Your task to perform on an android device: Show me recent news Image 0: 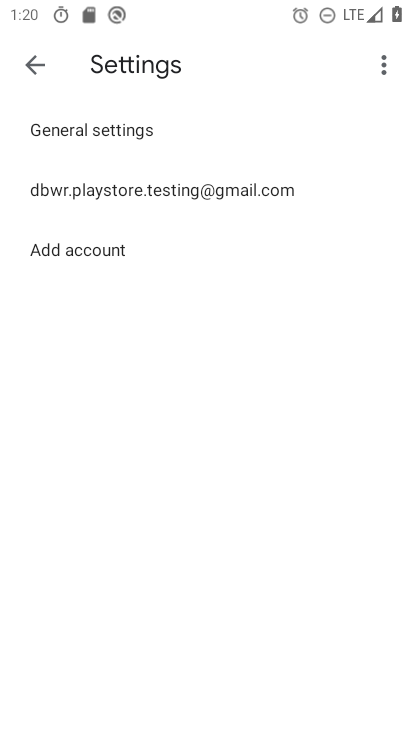
Step 0: press home button
Your task to perform on an android device: Show me recent news Image 1: 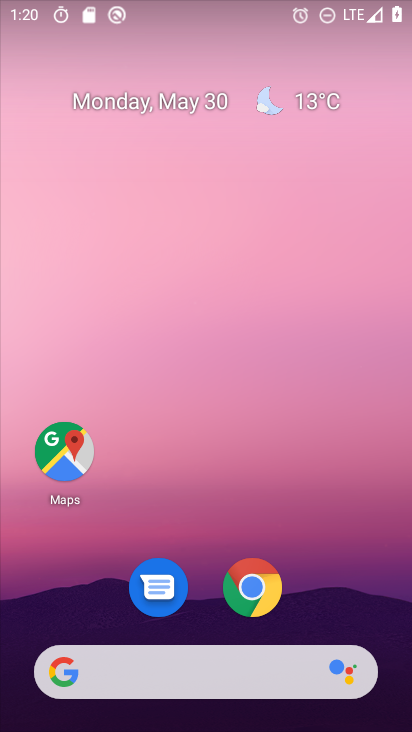
Step 1: drag from (309, 439) to (264, 151)
Your task to perform on an android device: Show me recent news Image 2: 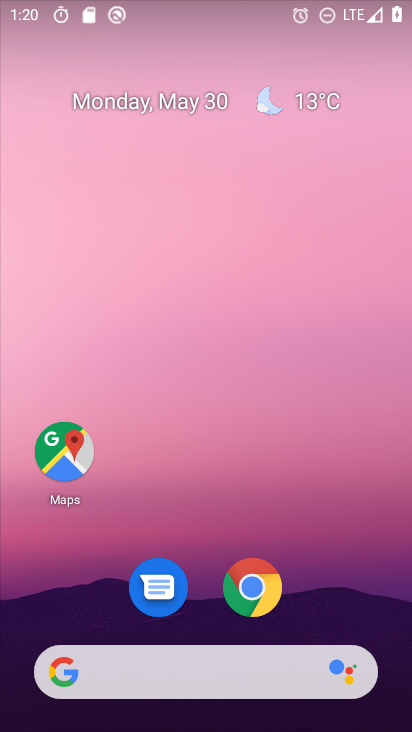
Step 2: drag from (298, 586) to (277, 208)
Your task to perform on an android device: Show me recent news Image 3: 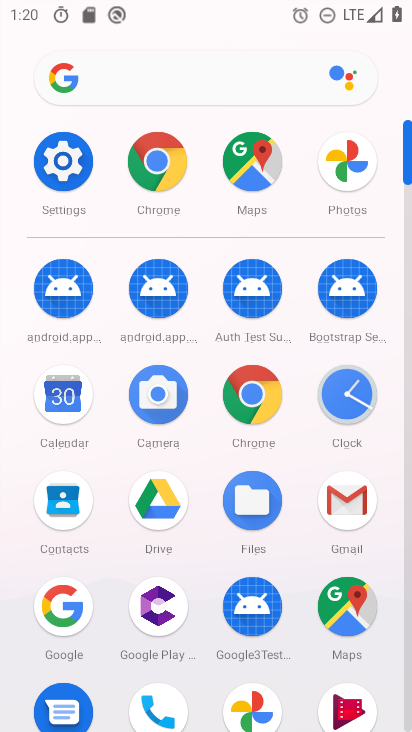
Step 3: click (248, 399)
Your task to perform on an android device: Show me recent news Image 4: 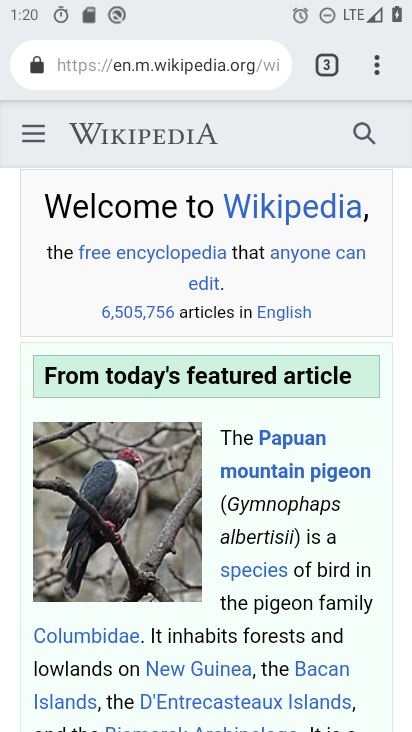
Step 4: click (159, 59)
Your task to perform on an android device: Show me recent news Image 5: 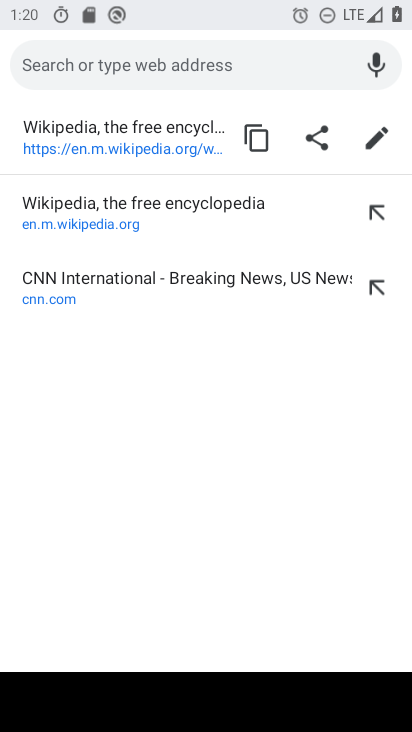
Step 5: type "news"
Your task to perform on an android device: Show me recent news Image 6: 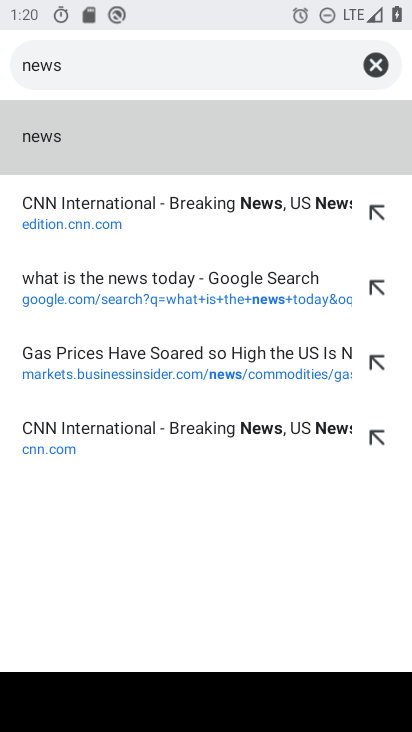
Step 6: click (39, 147)
Your task to perform on an android device: Show me recent news Image 7: 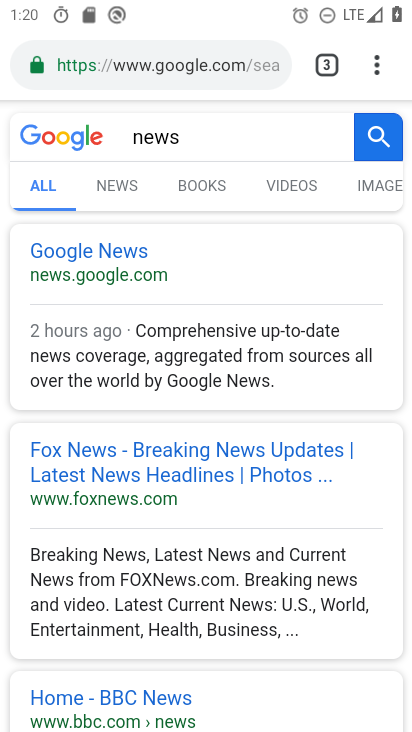
Step 7: click (125, 186)
Your task to perform on an android device: Show me recent news Image 8: 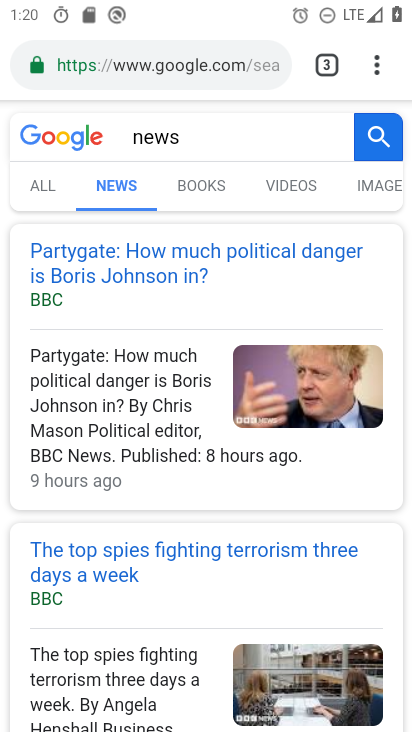
Step 8: task complete